Your task to perform on an android device: check the backup settings in the google photos Image 0: 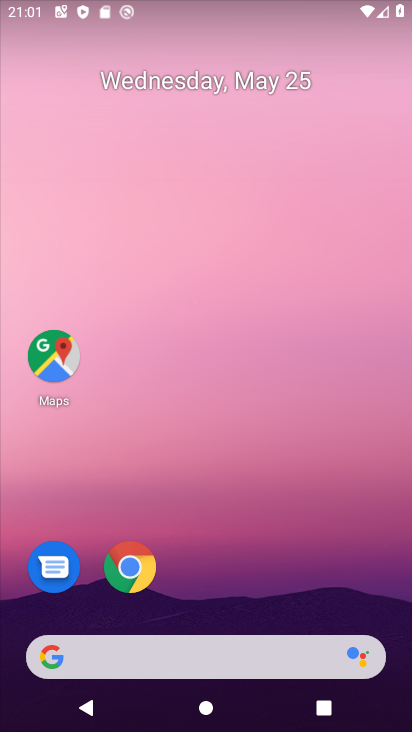
Step 0: drag from (270, 550) to (236, 165)
Your task to perform on an android device: check the backup settings in the google photos Image 1: 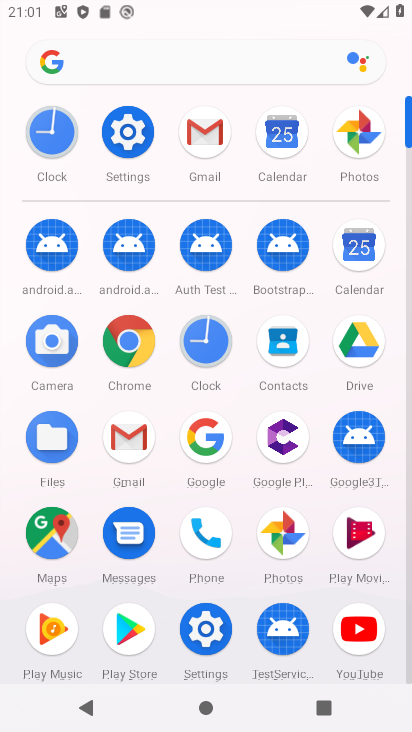
Step 1: click (356, 142)
Your task to perform on an android device: check the backup settings in the google photos Image 2: 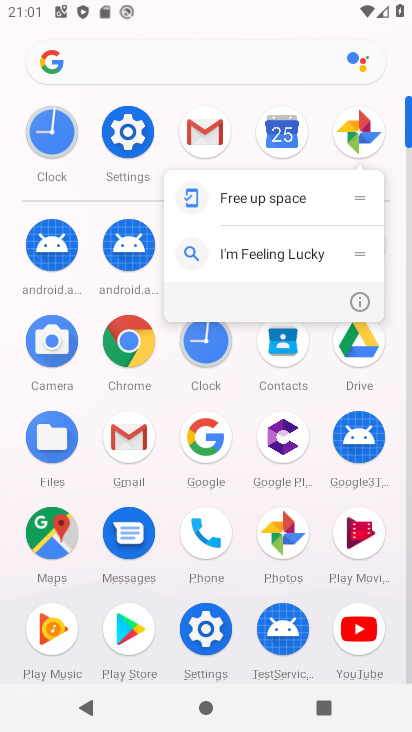
Step 2: click (364, 121)
Your task to perform on an android device: check the backup settings in the google photos Image 3: 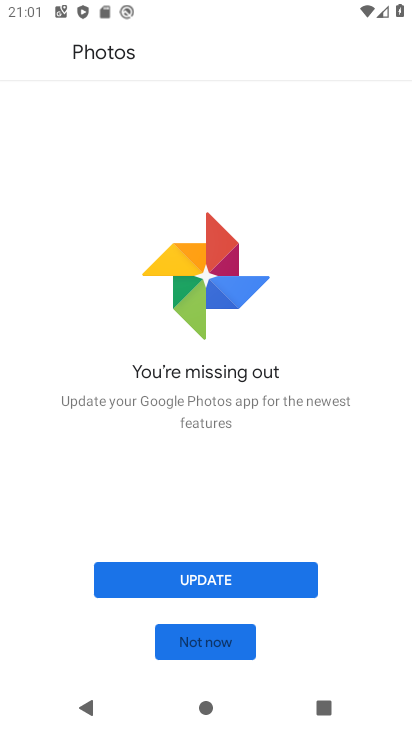
Step 3: click (200, 634)
Your task to perform on an android device: check the backup settings in the google photos Image 4: 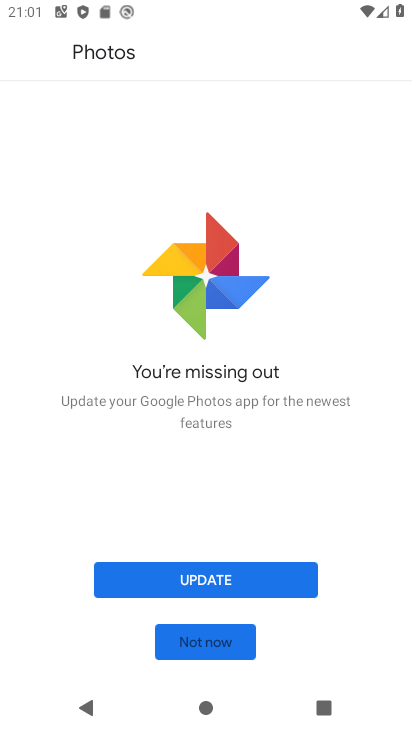
Step 4: click (200, 634)
Your task to perform on an android device: check the backup settings in the google photos Image 5: 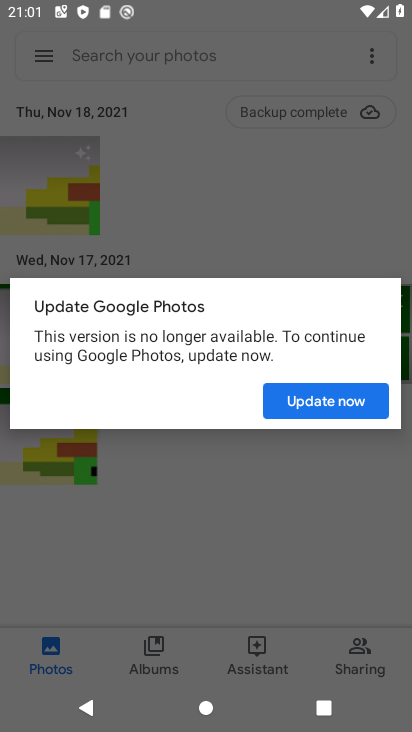
Step 5: click (353, 392)
Your task to perform on an android device: check the backup settings in the google photos Image 6: 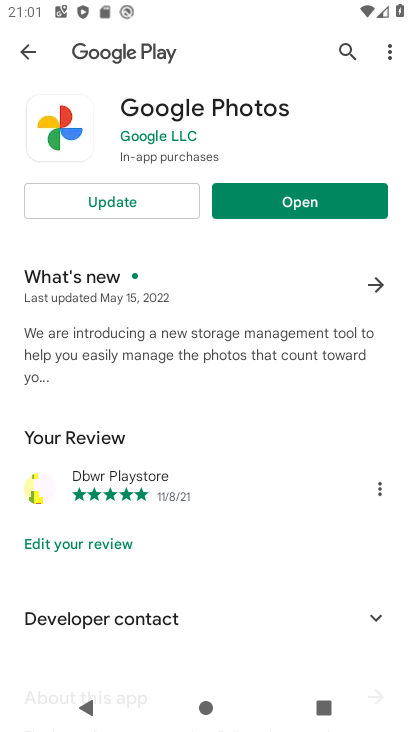
Step 6: click (346, 201)
Your task to perform on an android device: check the backup settings in the google photos Image 7: 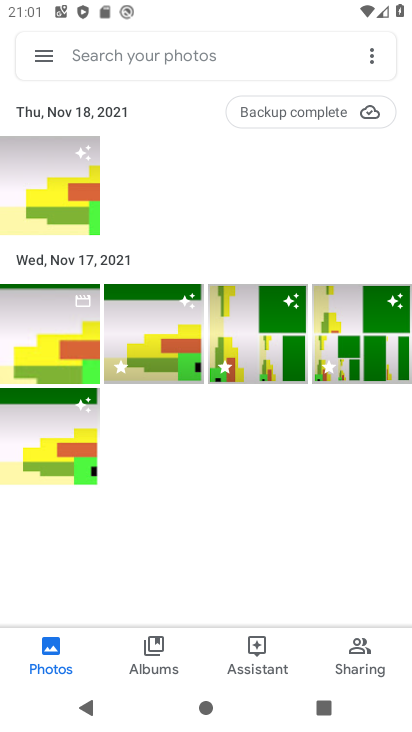
Step 7: click (42, 53)
Your task to perform on an android device: check the backup settings in the google photos Image 8: 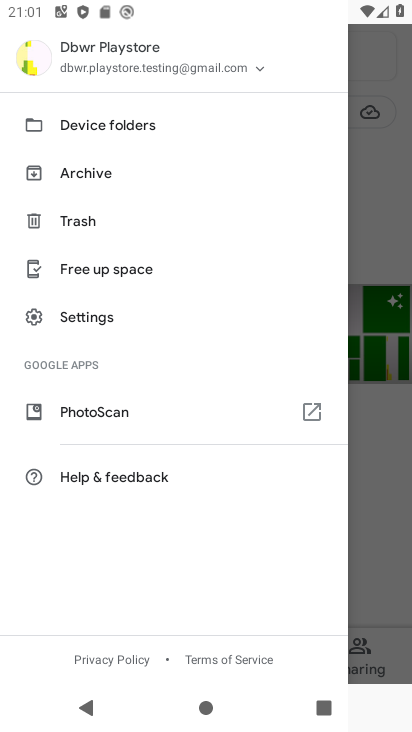
Step 8: click (84, 316)
Your task to perform on an android device: check the backup settings in the google photos Image 9: 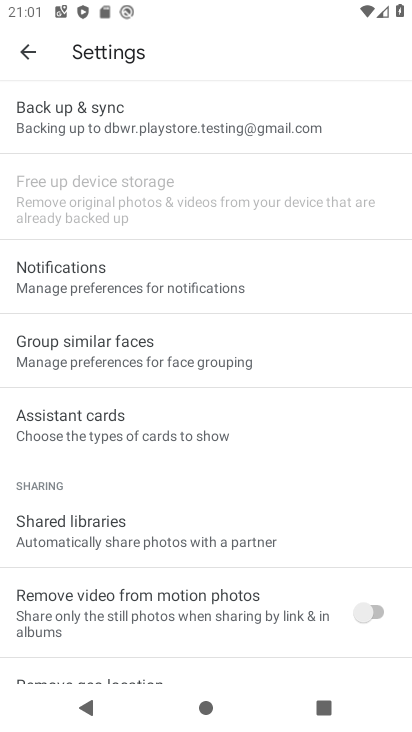
Step 9: click (168, 123)
Your task to perform on an android device: check the backup settings in the google photos Image 10: 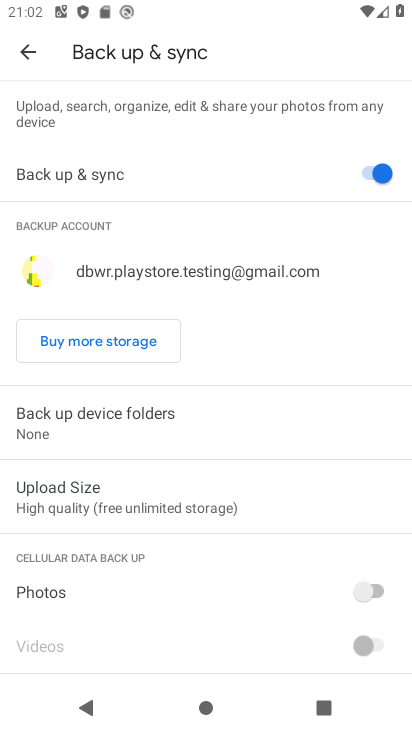
Step 10: task complete